Your task to perform on an android device: stop showing notifications on the lock screen Image 0: 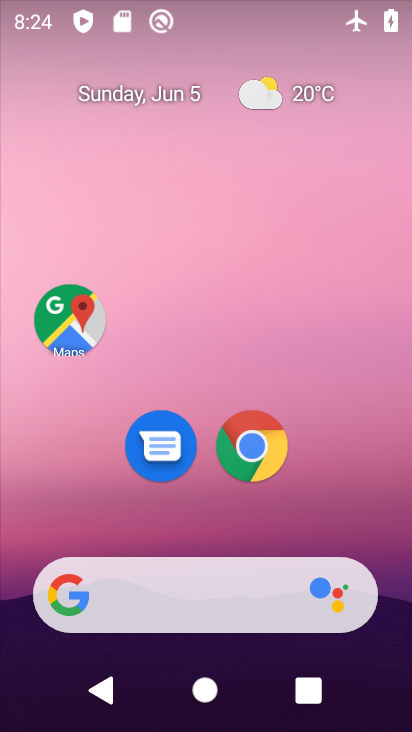
Step 0: drag from (182, 530) to (167, 194)
Your task to perform on an android device: stop showing notifications on the lock screen Image 1: 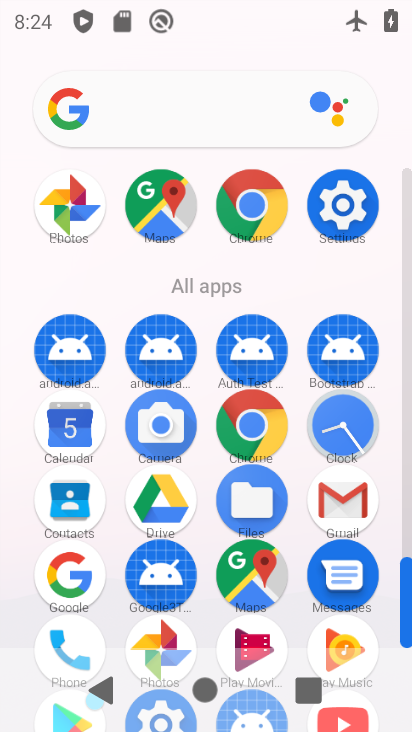
Step 1: click (339, 222)
Your task to perform on an android device: stop showing notifications on the lock screen Image 2: 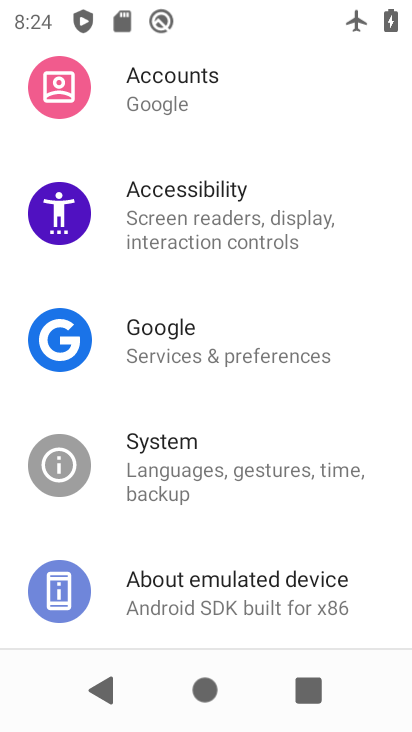
Step 2: drag from (215, 226) to (216, 576)
Your task to perform on an android device: stop showing notifications on the lock screen Image 3: 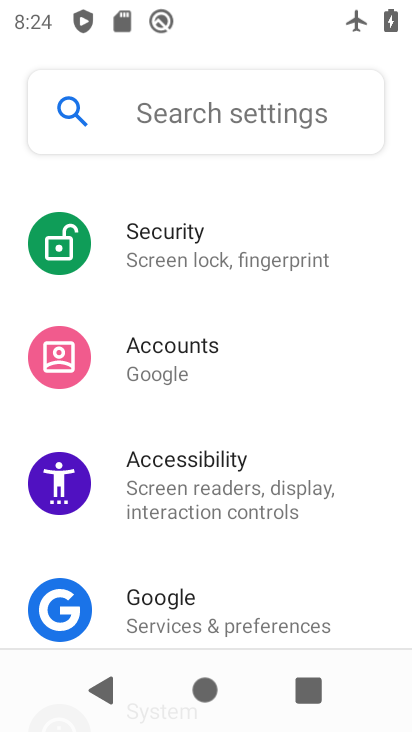
Step 3: drag from (245, 220) to (262, 542)
Your task to perform on an android device: stop showing notifications on the lock screen Image 4: 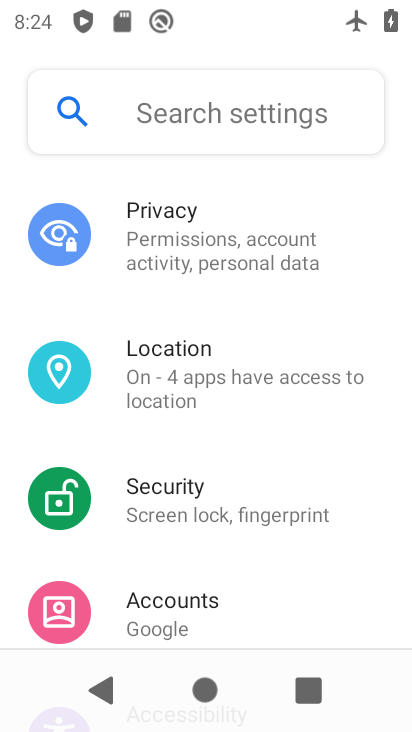
Step 4: drag from (255, 262) to (255, 575)
Your task to perform on an android device: stop showing notifications on the lock screen Image 5: 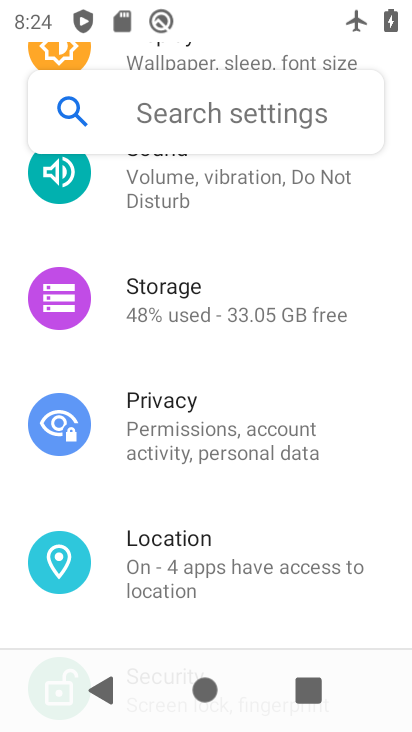
Step 5: drag from (237, 197) to (236, 530)
Your task to perform on an android device: stop showing notifications on the lock screen Image 6: 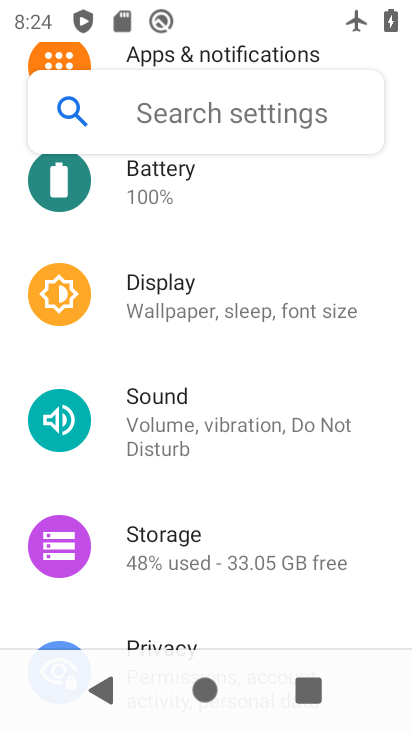
Step 6: drag from (259, 278) to (264, 511)
Your task to perform on an android device: stop showing notifications on the lock screen Image 7: 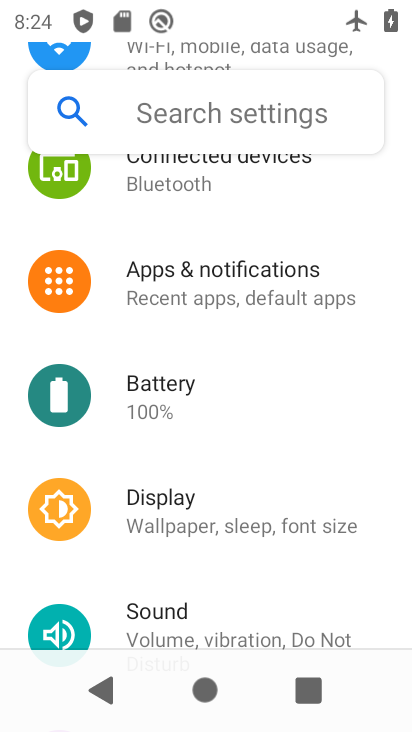
Step 7: click (233, 296)
Your task to perform on an android device: stop showing notifications on the lock screen Image 8: 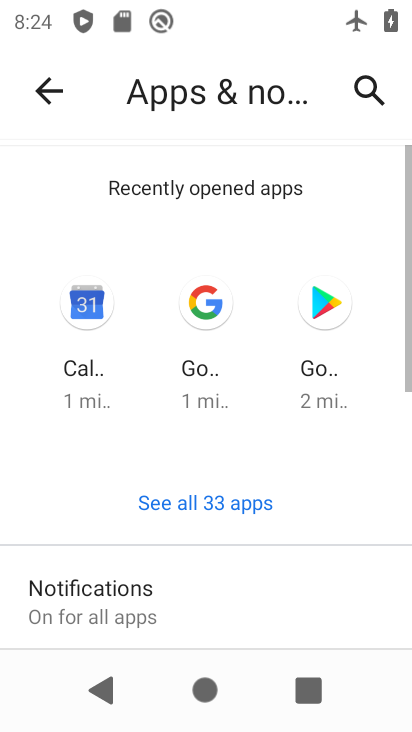
Step 8: drag from (208, 612) to (235, 305)
Your task to perform on an android device: stop showing notifications on the lock screen Image 9: 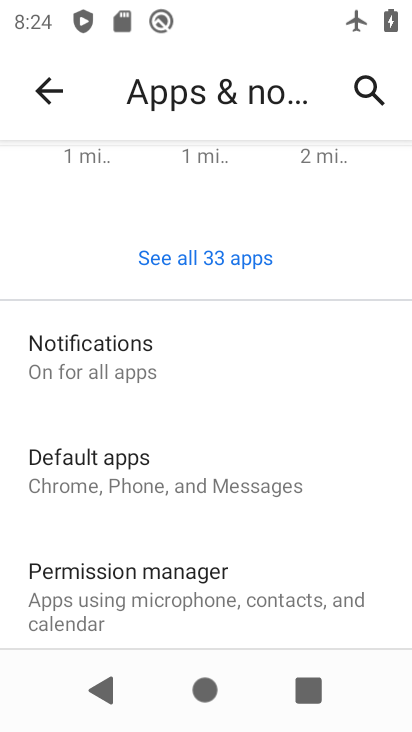
Step 9: click (179, 374)
Your task to perform on an android device: stop showing notifications on the lock screen Image 10: 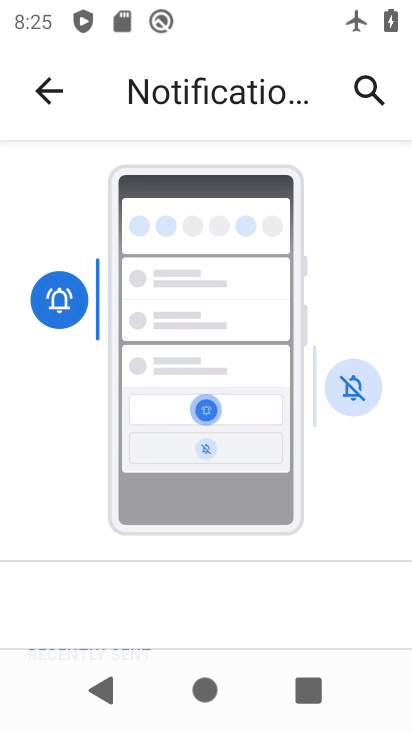
Step 10: drag from (236, 475) to (276, 128)
Your task to perform on an android device: stop showing notifications on the lock screen Image 11: 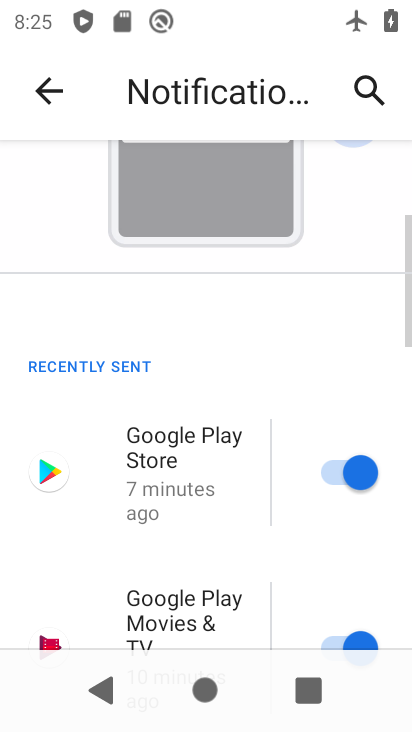
Step 11: drag from (272, 558) to (261, 260)
Your task to perform on an android device: stop showing notifications on the lock screen Image 12: 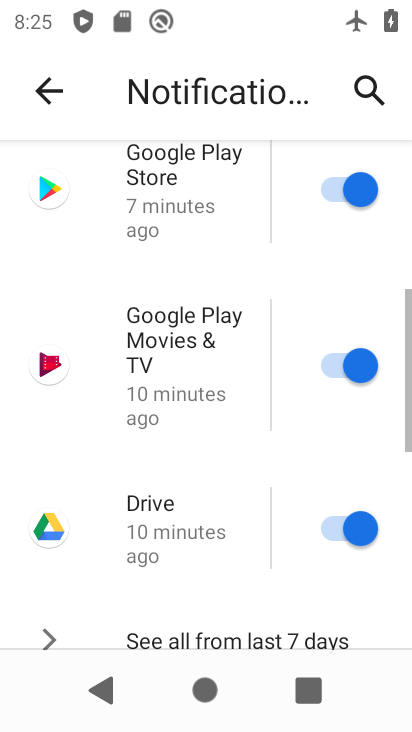
Step 12: drag from (238, 511) to (264, 191)
Your task to perform on an android device: stop showing notifications on the lock screen Image 13: 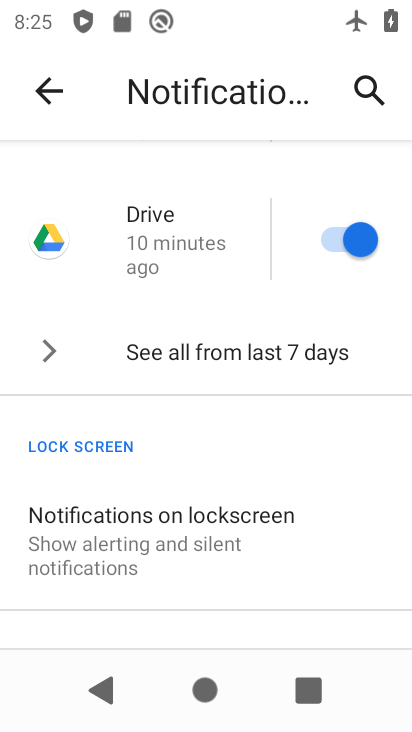
Step 13: click (237, 542)
Your task to perform on an android device: stop showing notifications on the lock screen Image 14: 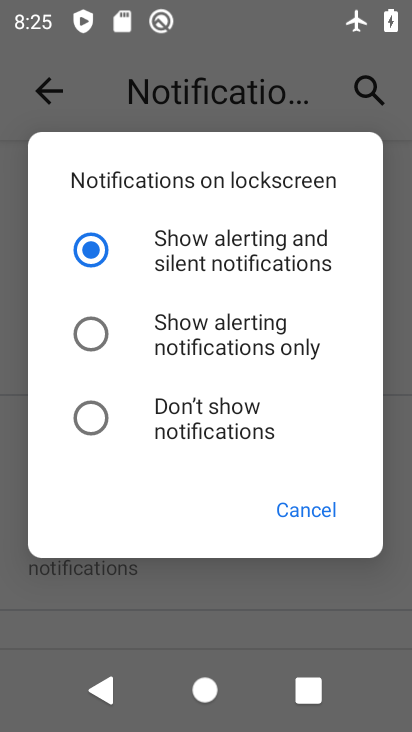
Step 14: click (204, 410)
Your task to perform on an android device: stop showing notifications on the lock screen Image 15: 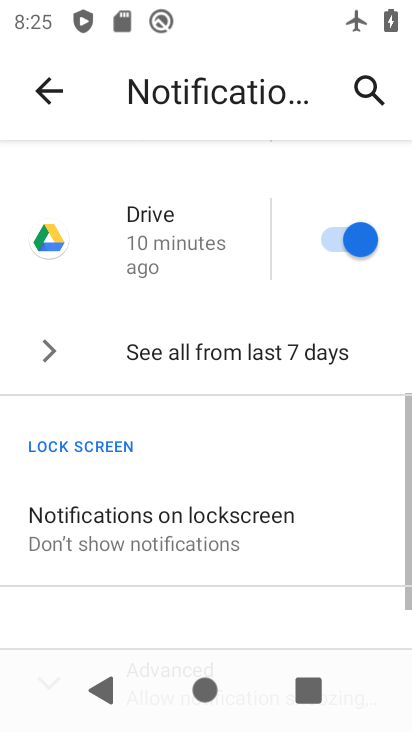
Step 15: task complete